Your task to perform on an android device: turn on bluetooth scan Image 0: 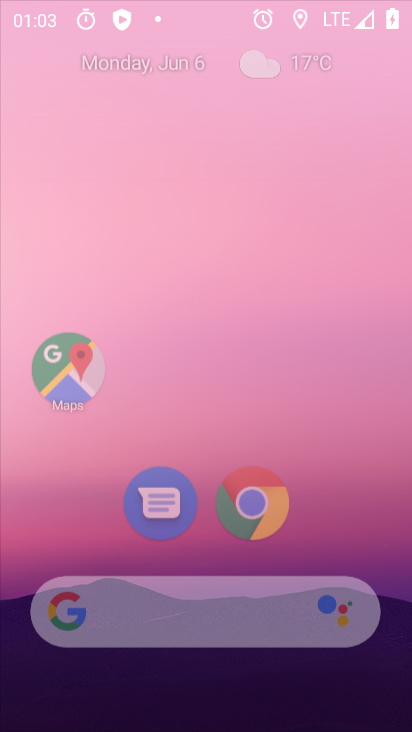
Step 0: click (91, 390)
Your task to perform on an android device: turn on bluetooth scan Image 1: 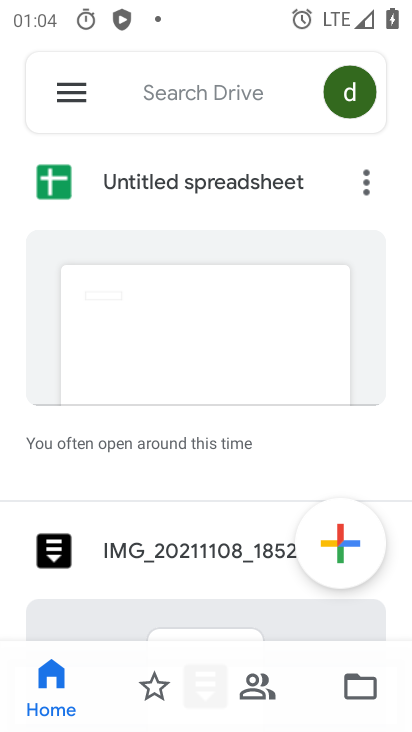
Step 1: press home button
Your task to perform on an android device: turn on bluetooth scan Image 2: 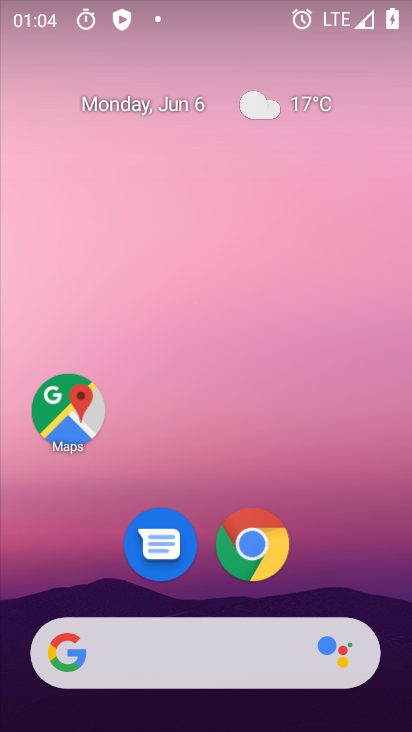
Step 2: drag from (373, 584) to (295, 236)
Your task to perform on an android device: turn on bluetooth scan Image 3: 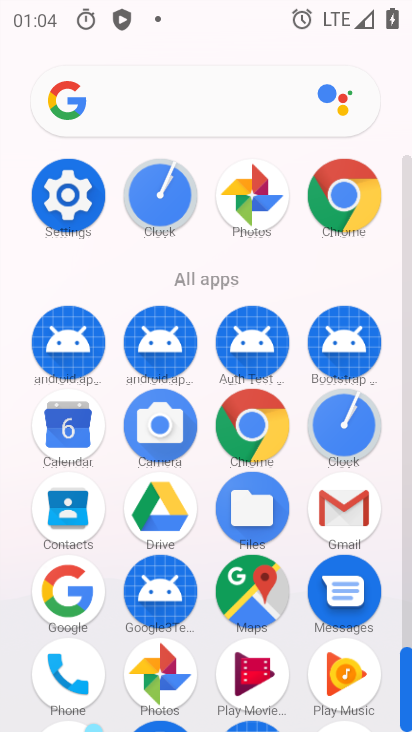
Step 3: click (81, 197)
Your task to perform on an android device: turn on bluetooth scan Image 4: 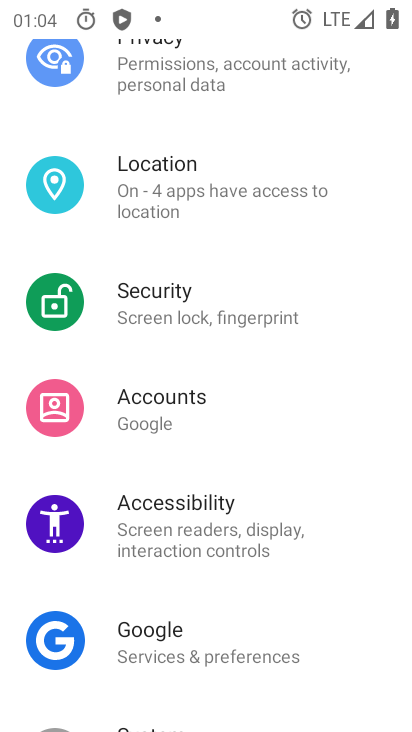
Step 4: click (202, 179)
Your task to perform on an android device: turn on bluetooth scan Image 5: 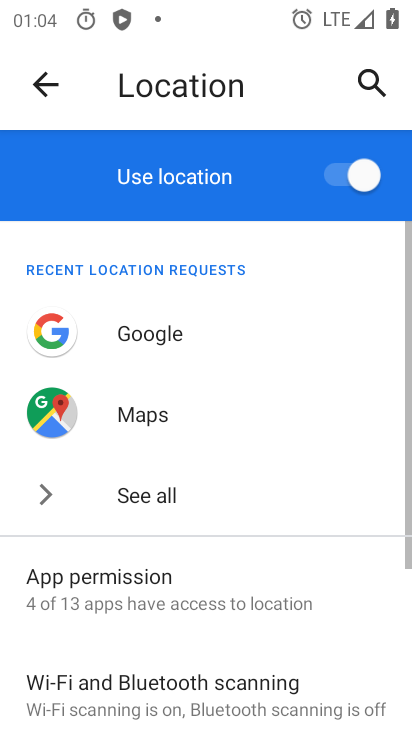
Step 5: drag from (257, 623) to (196, 338)
Your task to perform on an android device: turn on bluetooth scan Image 6: 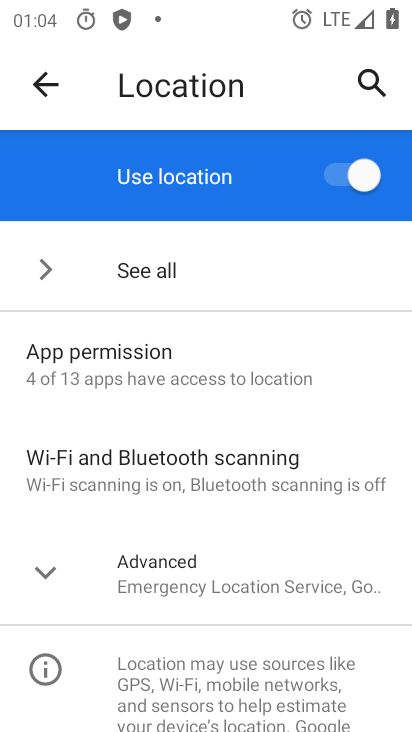
Step 6: click (235, 474)
Your task to perform on an android device: turn on bluetooth scan Image 7: 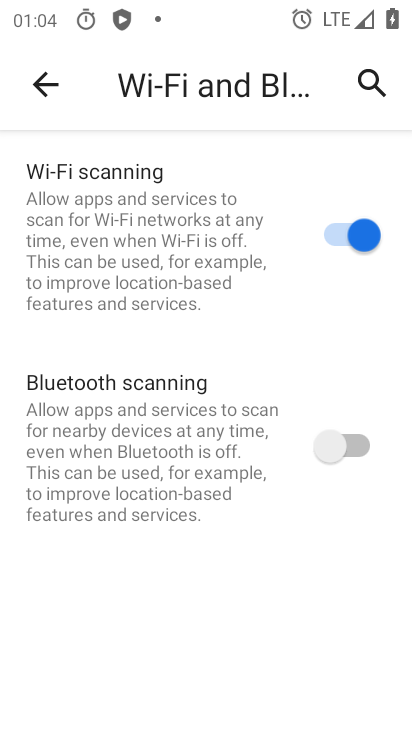
Step 7: click (358, 457)
Your task to perform on an android device: turn on bluetooth scan Image 8: 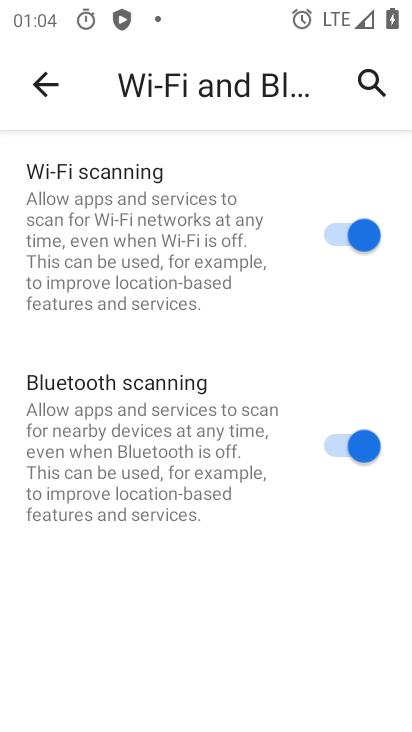
Step 8: task complete